Your task to perform on an android device: toggle location history Image 0: 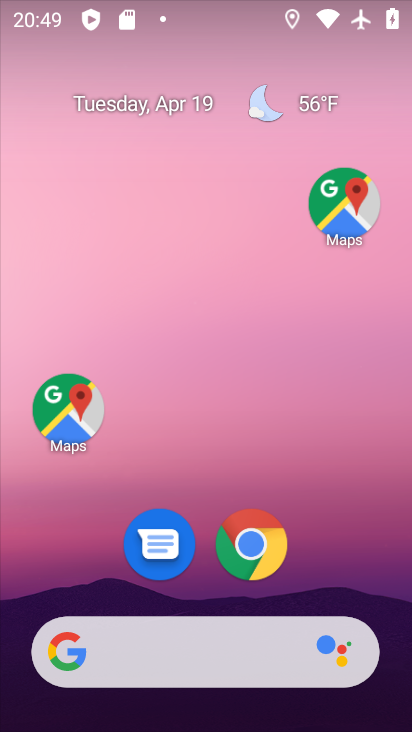
Step 0: drag from (166, 660) to (324, 76)
Your task to perform on an android device: toggle location history Image 1: 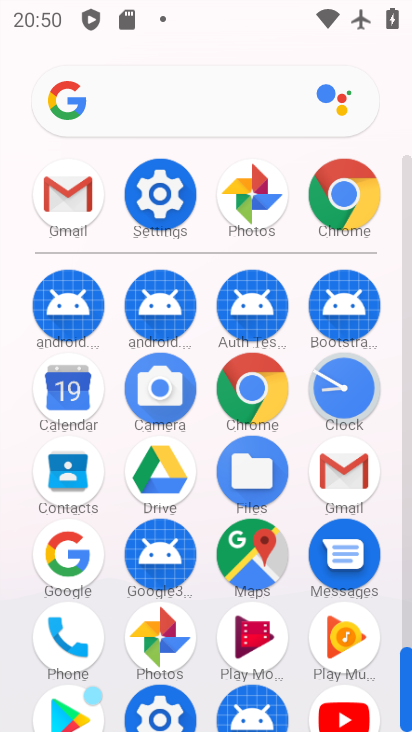
Step 1: click (157, 221)
Your task to perform on an android device: toggle location history Image 2: 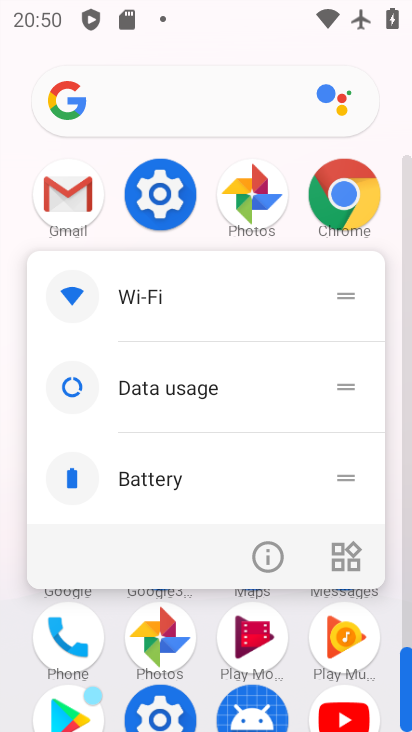
Step 2: click (172, 197)
Your task to perform on an android device: toggle location history Image 3: 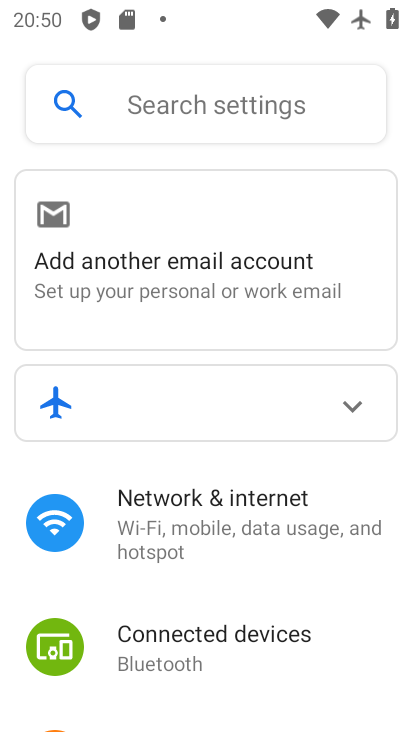
Step 3: drag from (207, 674) to (410, 176)
Your task to perform on an android device: toggle location history Image 4: 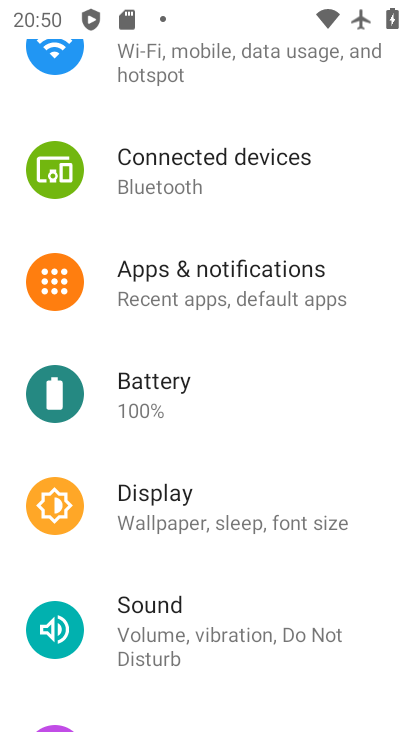
Step 4: drag from (165, 596) to (356, 57)
Your task to perform on an android device: toggle location history Image 5: 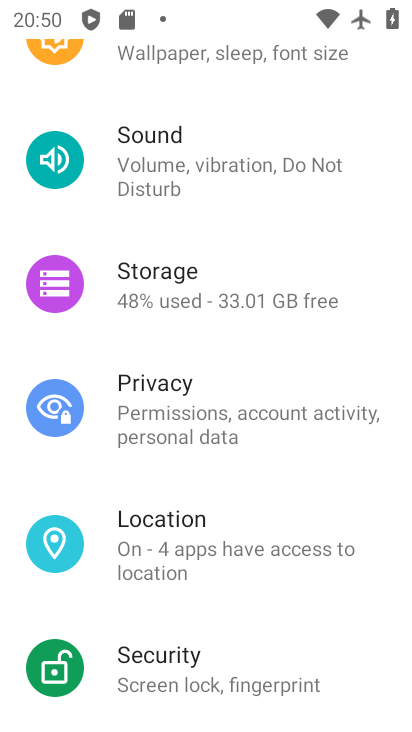
Step 5: click (193, 523)
Your task to perform on an android device: toggle location history Image 6: 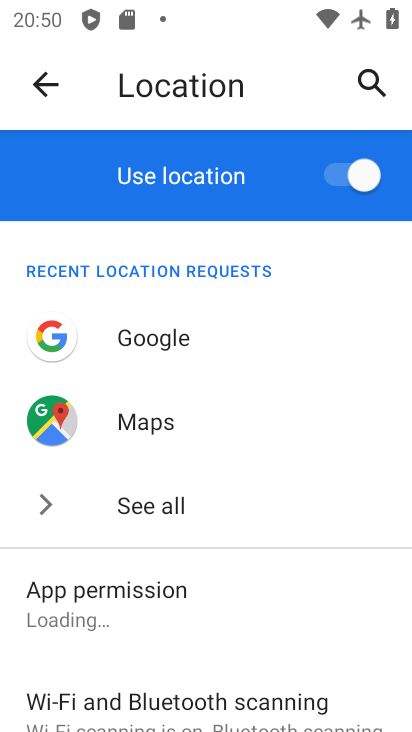
Step 6: drag from (177, 645) to (320, 220)
Your task to perform on an android device: toggle location history Image 7: 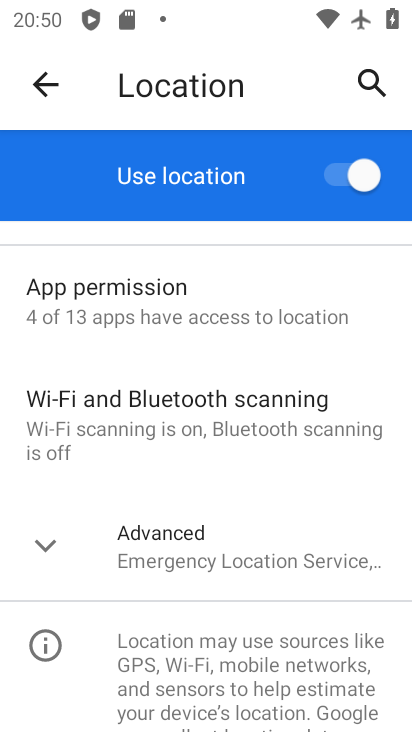
Step 7: click (185, 534)
Your task to perform on an android device: toggle location history Image 8: 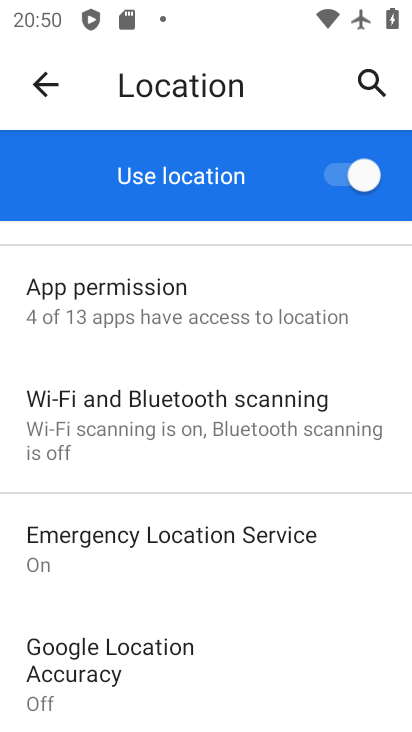
Step 8: drag from (152, 625) to (345, 99)
Your task to perform on an android device: toggle location history Image 9: 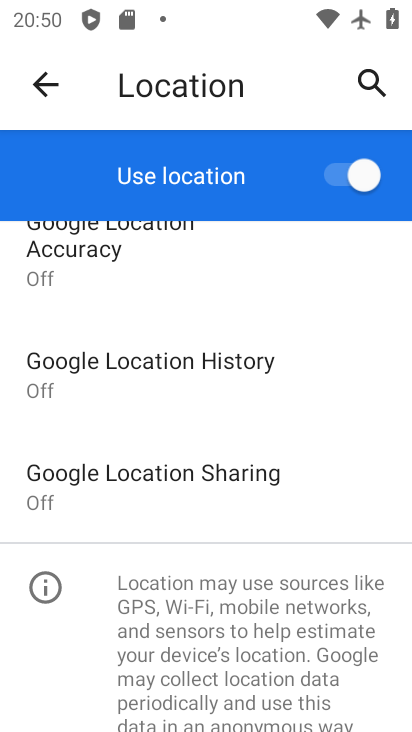
Step 9: click (135, 357)
Your task to perform on an android device: toggle location history Image 10: 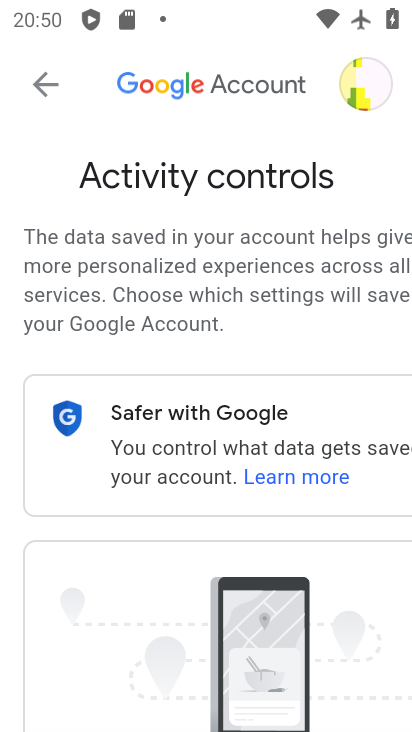
Step 10: drag from (153, 612) to (344, 113)
Your task to perform on an android device: toggle location history Image 11: 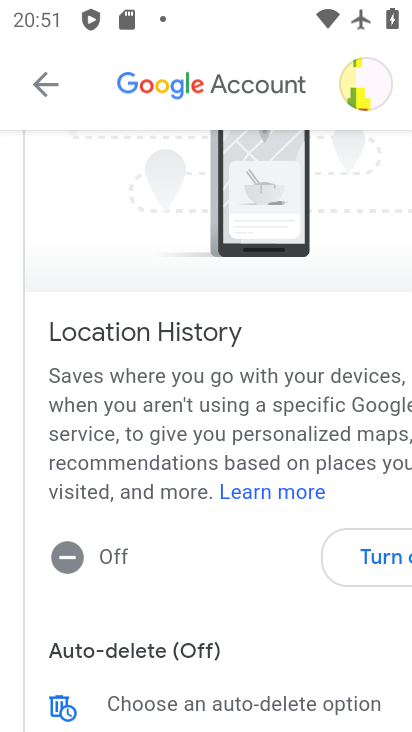
Step 11: click (365, 562)
Your task to perform on an android device: toggle location history Image 12: 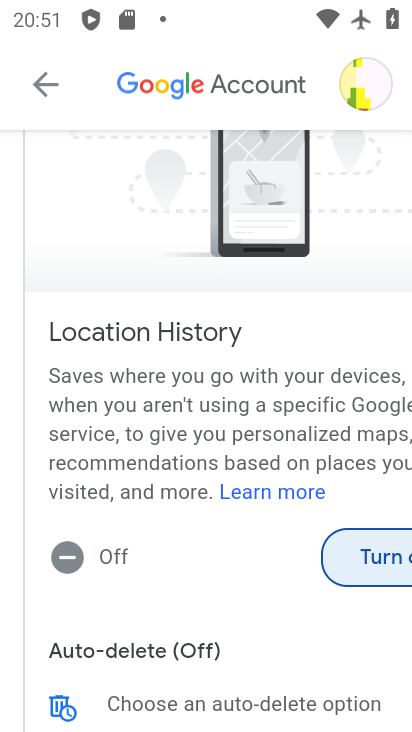
Step 12: click (372, 558)
Your task to perform on an android device: toggle location history Image 13: 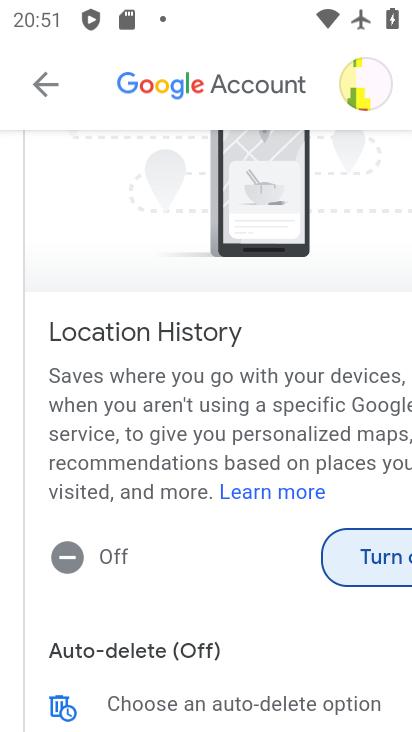
Step 13: click (375, 557)
Your task to perform on an android device: toggle location history Image 14: 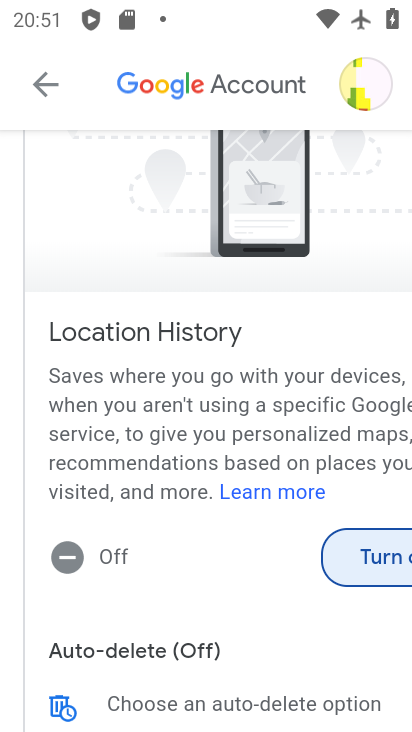
Step 14: click (390, 561)
Your task to perform on an android device: toggle location history Image 15: 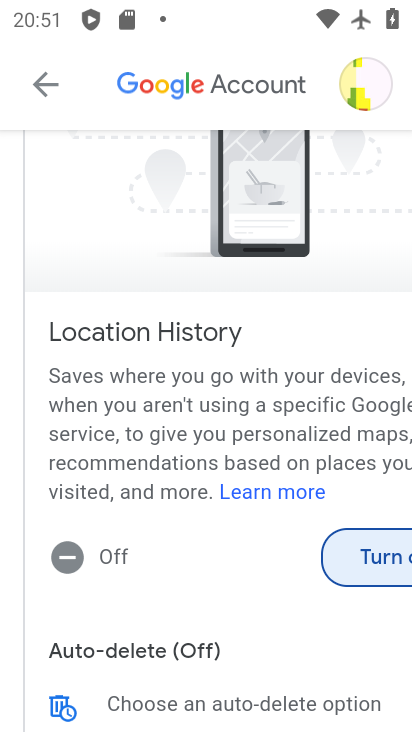
Step 15: click (365, 549)
Your task to perform on an android device: toggle location history Image 16: 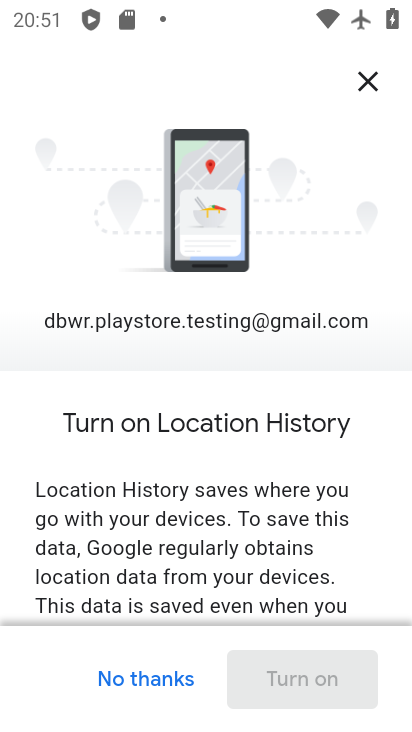
Step 16: drag from (205, 567) to (326, 179)
Your task to perform on an android device: toggle location history Image 17: 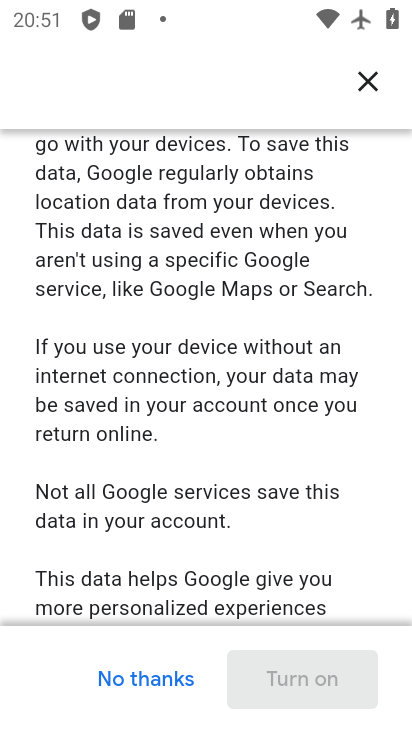
Step 17: drag from (253, 421) to (362, 59)
Your task to perform on an android device: toggle location history Image 18: 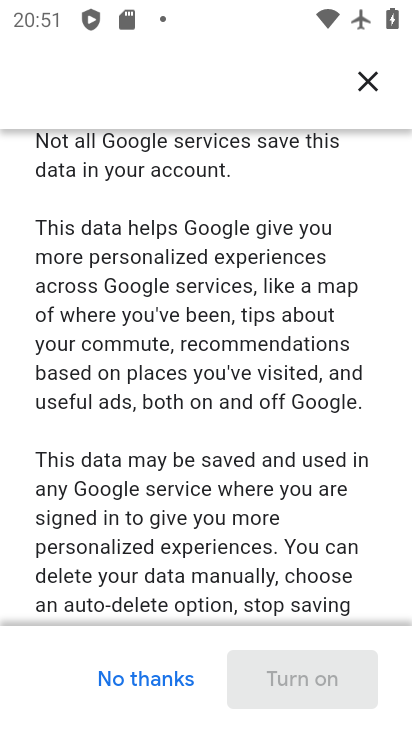
Step 18: drag from (212, 559) to (388, 96)
Your task to perform on an android device: toggle location history Image 19: 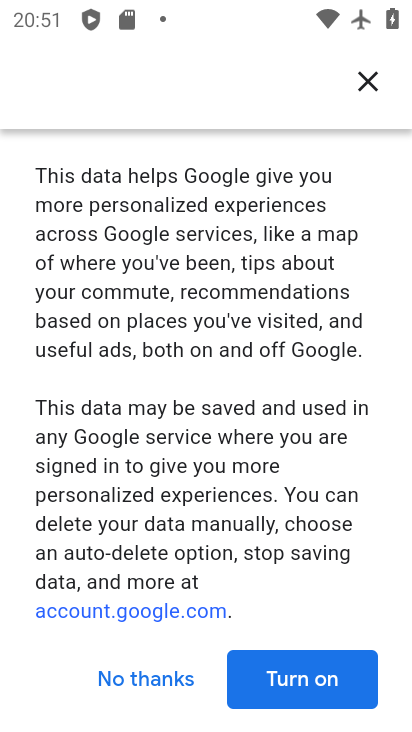
Step 19: click (306, 682)
Your task to perform on an android device: toggle location history Image 20: 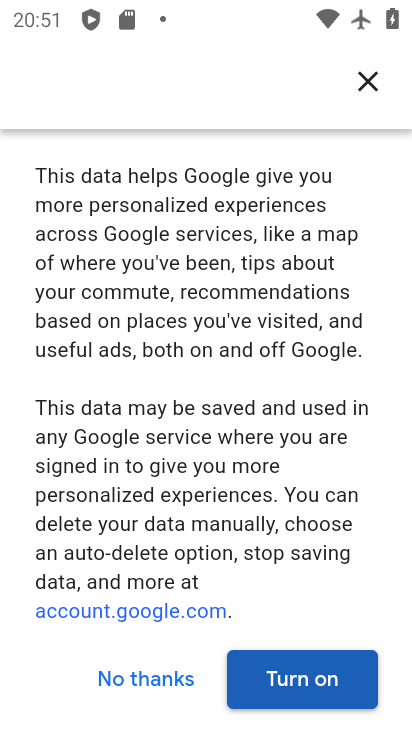
Step 20: click (304, 689)
Your task to perform on an android device: toggle location history Image 21: 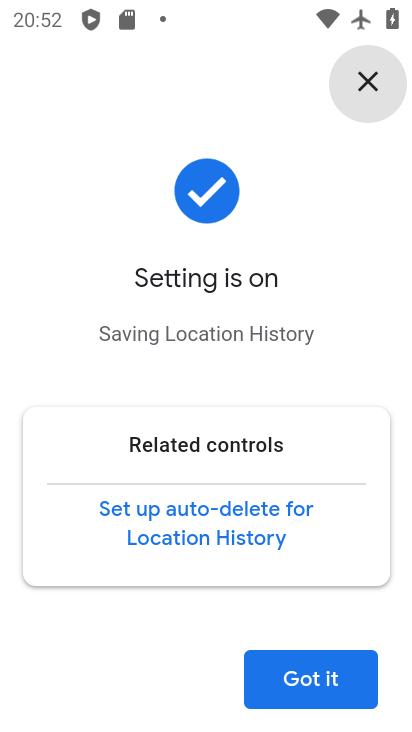
Step 21: task complete